Your task to perform on an android device: empty trash in the gmail app Image 0: 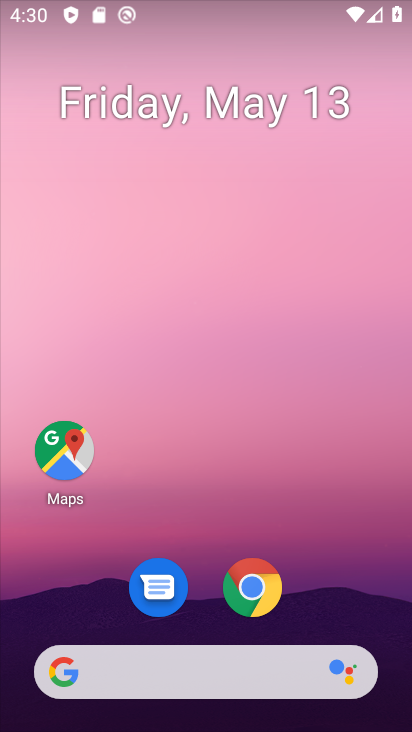
Step 0: drag from (178, 511) to (163, 66)
Your task to perform on an android device: empty trash in the gmail app Image 1: 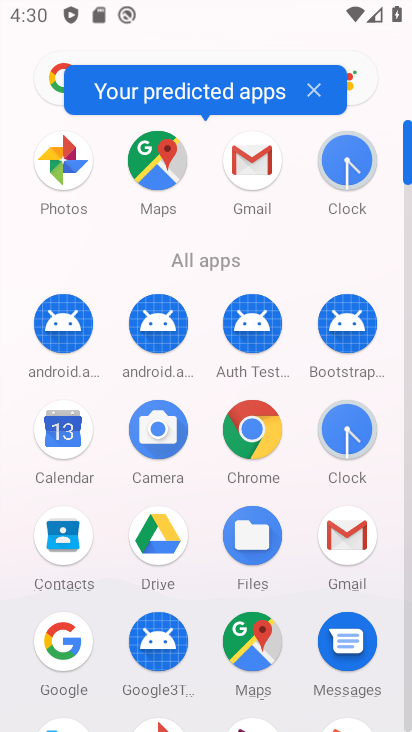
Step 1: drag from (300, 269) to (284, 4)
Your task to perform on an android device: empty trash in the gmail app Image 2: 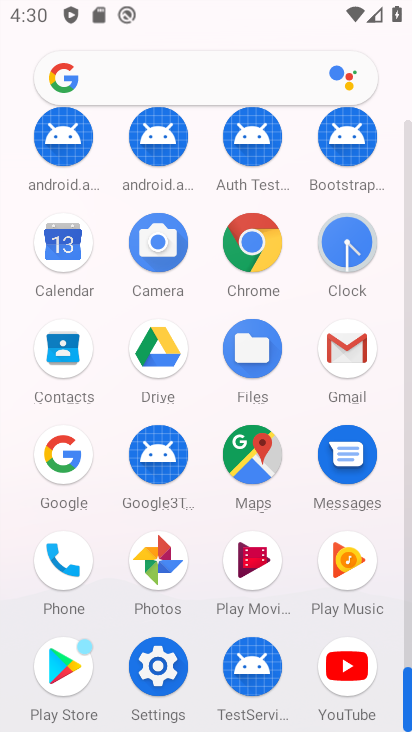
Step 2: click (345, 346)
Your task to perform on an android device: empty trash in the gmail app Image 3: 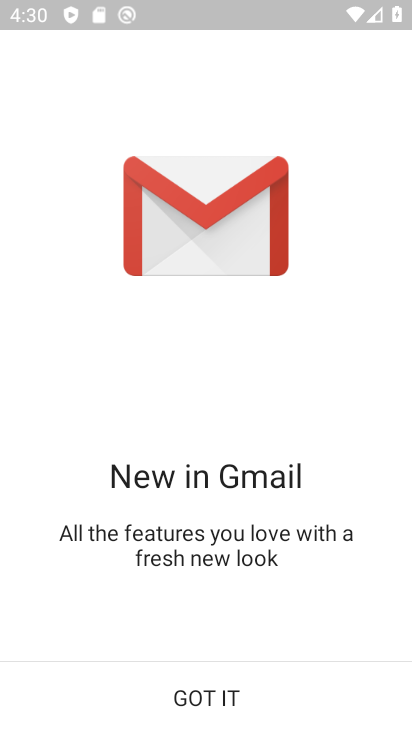
Step 3: click (212, 686)
Your task to perform on an android device: empty trash in the gmail app Image 4: 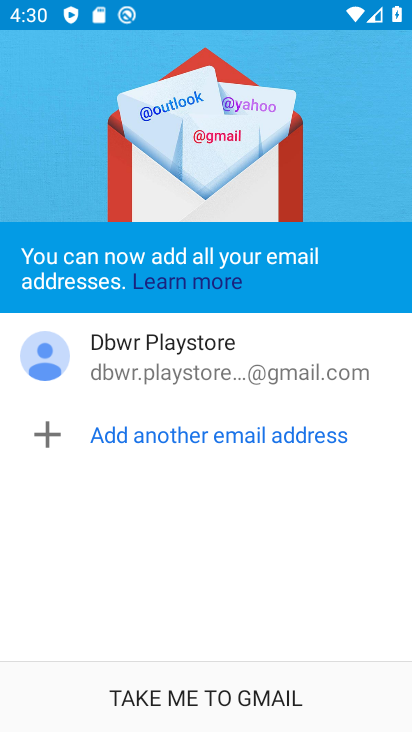
Step 4: click (198, 683)
Your task to perform on an android device: empty trash in the gmail app Image 5: 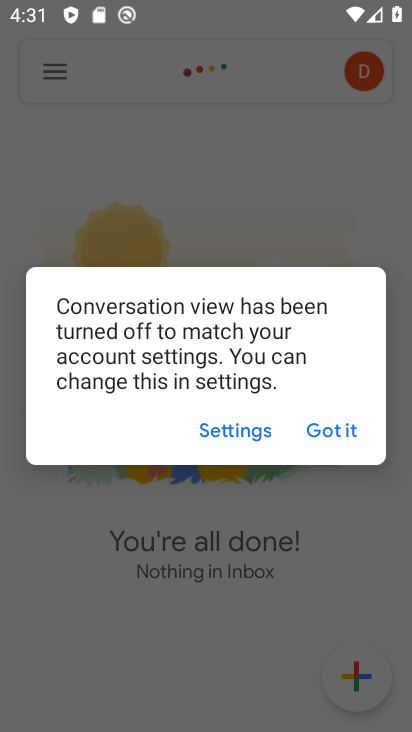
Step 5: click (327, 426)
Your task to perform on an android device: empty trash in the gmail app Image 6: 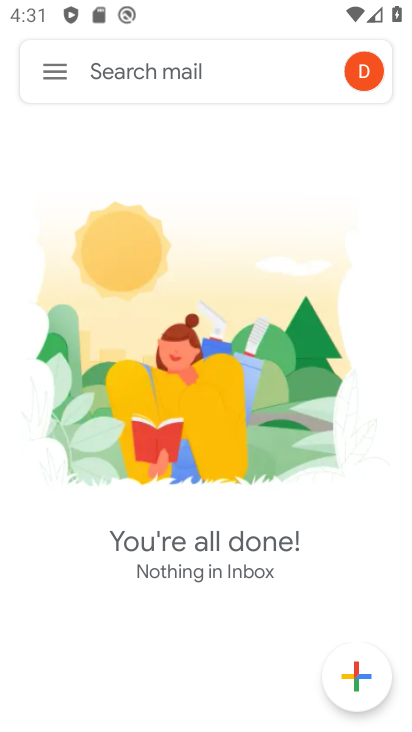
Step 6: click (59, 65)
Your task to perform on an android device: empty trash in the gmail app Image 7: 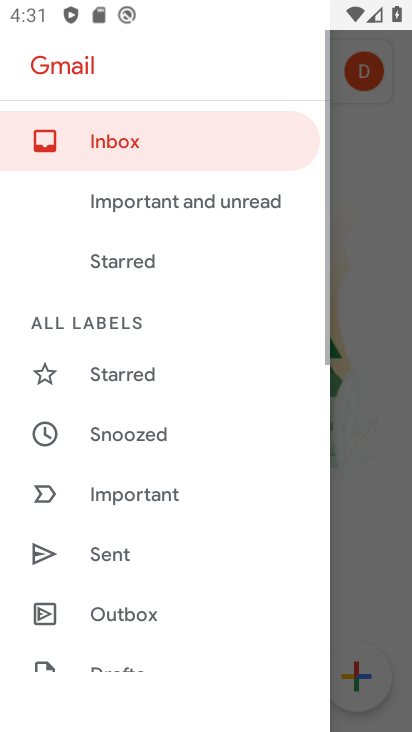
Step 7: drag from (221, 614) to (203, 268)
Your task to perform on an android device: empty trash in the gmail app Image 8: 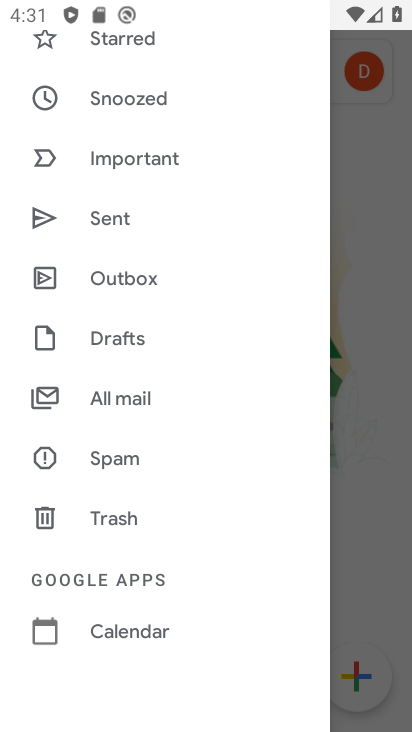
Step 8: click (114, 520)
Your task to perform on an android device: empty trash in the gmail app Image 9: 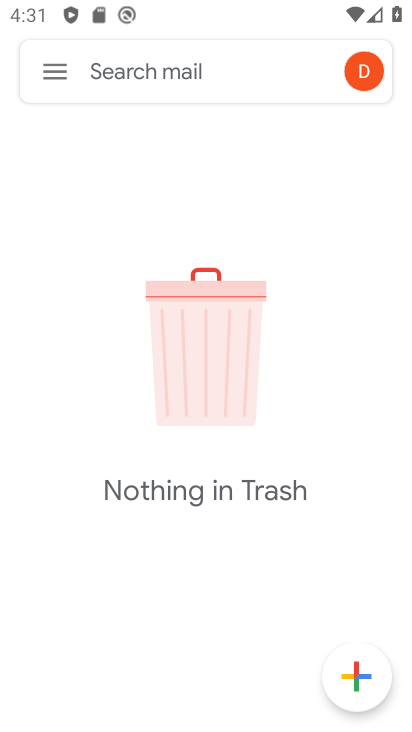
Step 9: task complete